Your task to perform on an android device: stop showing notifications on the lock screen Image 0: 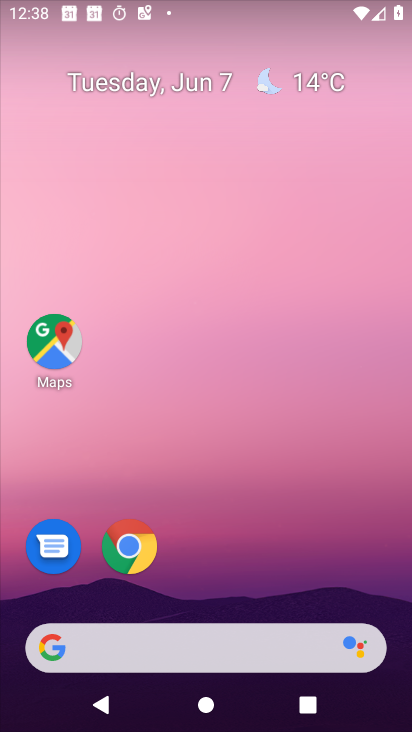
Step 0: drag from (234, 477) to (352, 49)
Your task to perform on an android device: stop showing notifications on the lock screen Image 1: 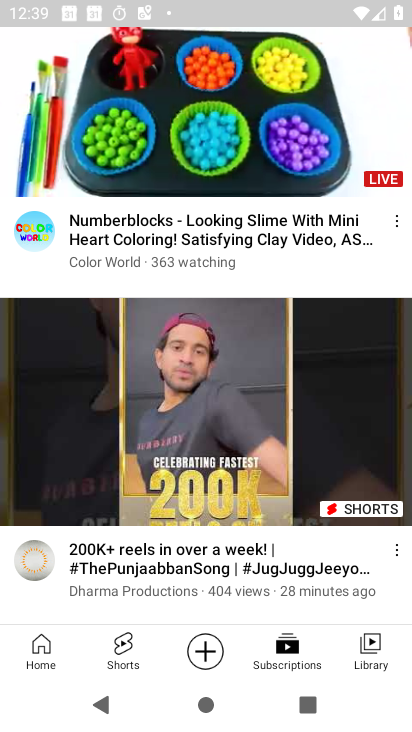
Step 1: press home button
Your task to perform on an android device: stop showing notifications on the lock screen Image 2: 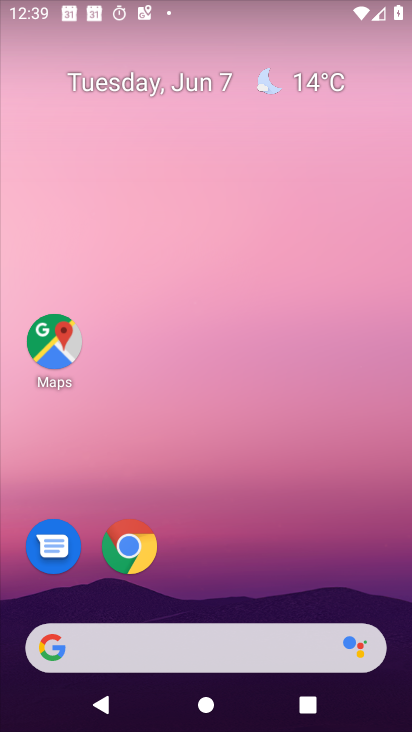
Step 2: drag from (246, 608) to (372, 60)
Your task to perform on an android device: stop showing notifications on the lock screen Image 3: 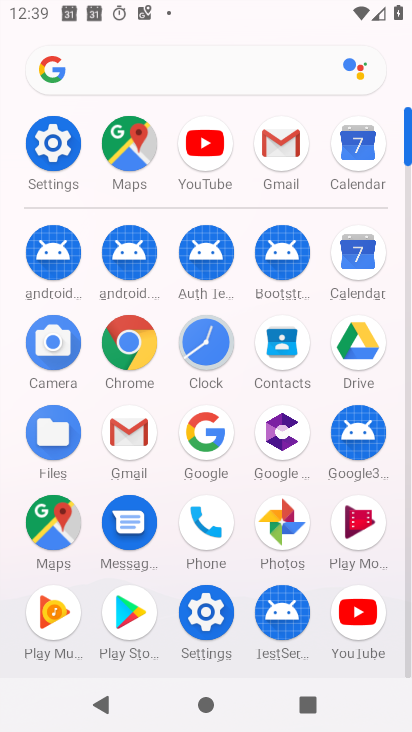
Step 3: click (204, 618)
Your task to perform on an android device: stop showing notifications on the lock screen Image 4: 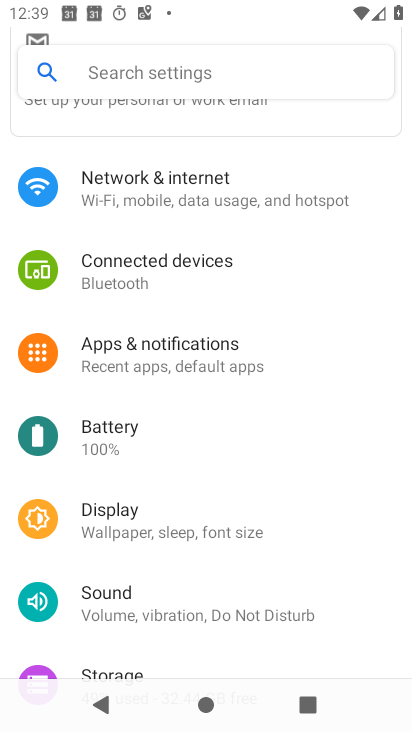
Step 4: click (160, 363)
Your task to perform on an android device: stop showing notifications on the lock screen Image 5: 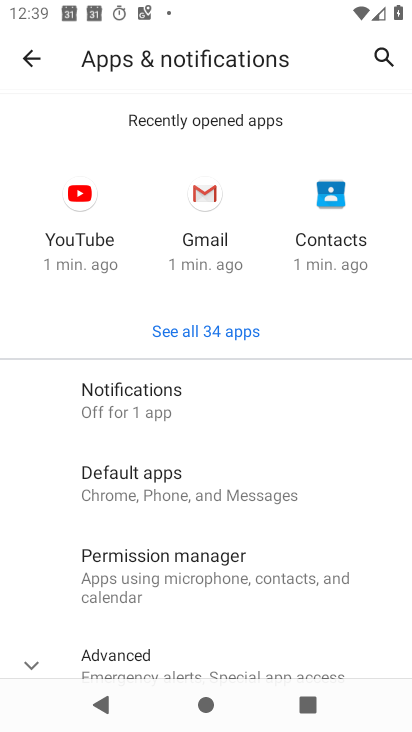
Step 5: drag from (130, 520) to (192, 317)
Your task to perform on an android device: stop showing notifications on the lock screen Image 6: 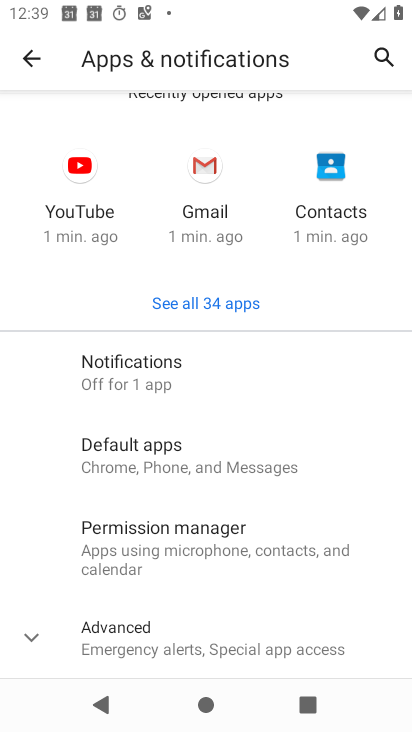
Step 6: click (110, 386)
Your task to perform on an android device: stop showing notifications on the lock screen Image 7: 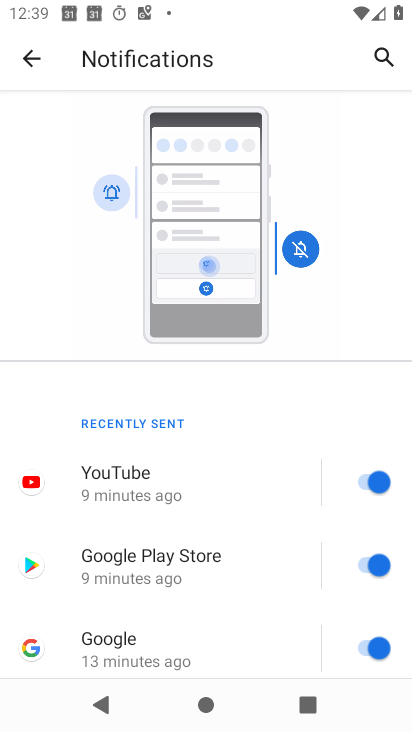
Step 7: drag from (132, 561) to (223, 244)
Your task to perform on an android device: stop showing notifications on the lock screen Image 8: 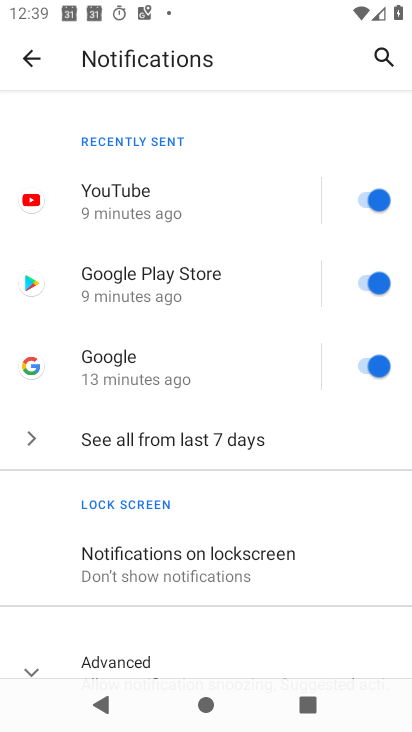
Step 8: click (151, 568)
Your task to perform on an android device: stop showing notifications on the lock screen Image 9: 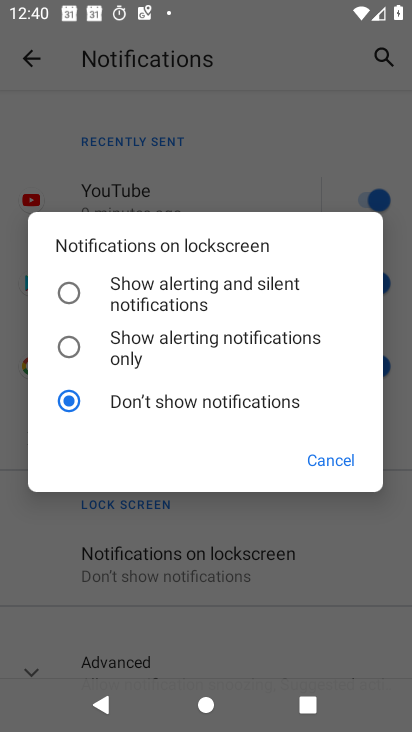
Step 9: task complete